Your task to perform on an android device: turn off picture-in-picture Image 0: 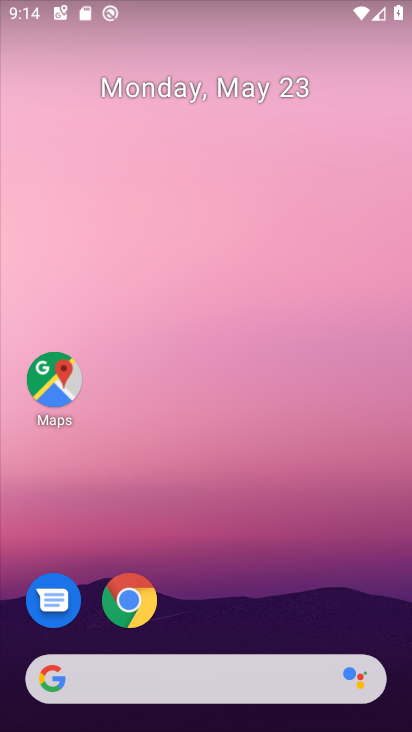
Step 0: drag from (190, 725) to (139, 104)
Your task to perform on an android device: turn off picture-in-picture Image 1: 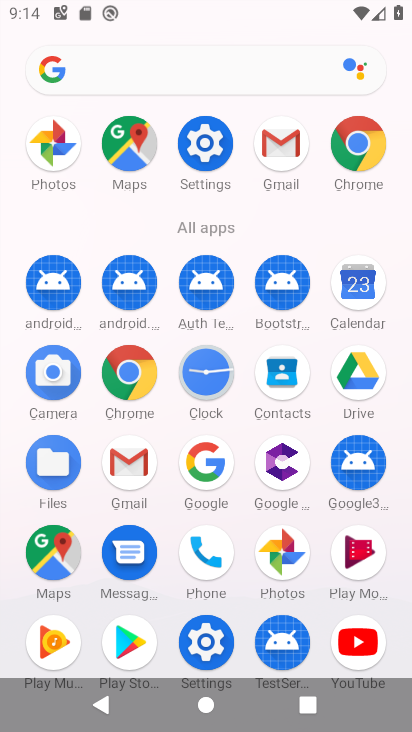
Step 1: click (198, 144)
Your task to perform on an android device: turn off picture-in-picture Image 2: 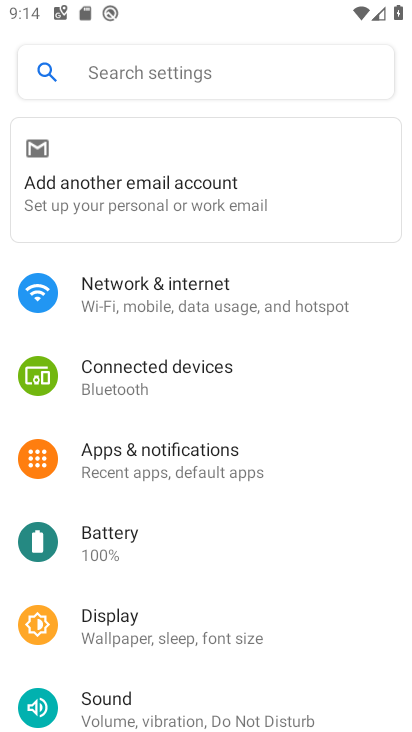
Step 2: click (151, 436)
Your task to perform on an android device: turn off picture-in-picture Image 3: 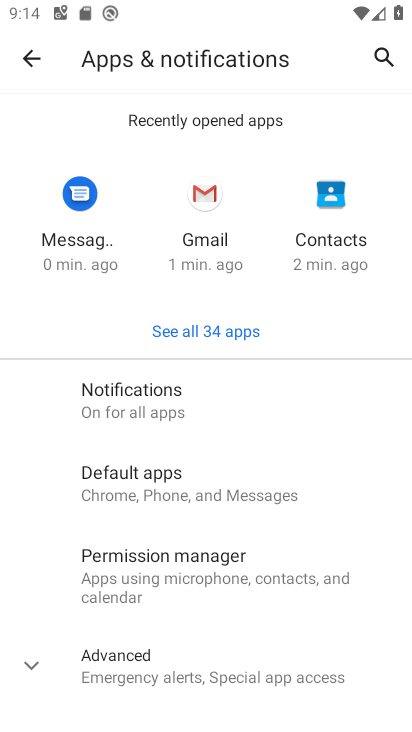
Step 3: click (140, 657)
Your task to perform on an android device: turn off picture-in-picture Image 4: 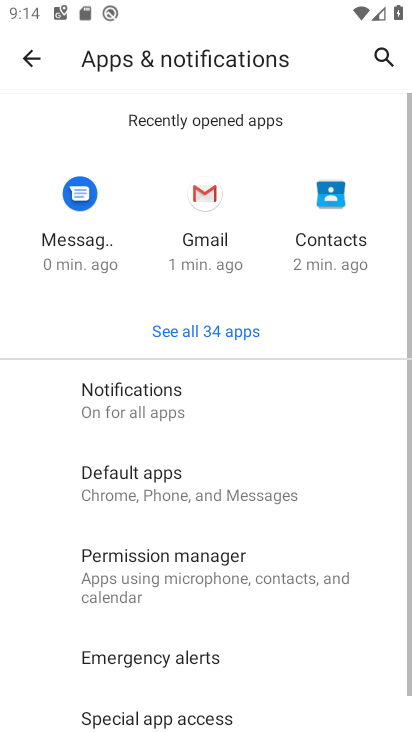
Step 4: drag from (172, 682) to (177, 381)
Your task to perform on an android device: turn off picture-in-picture Image 5: 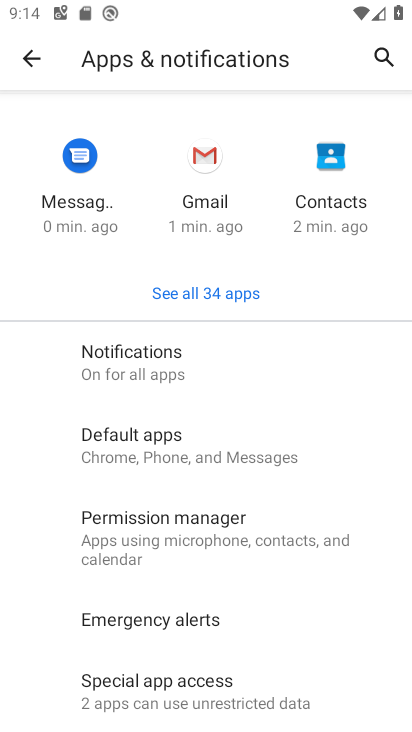
Step 5: click (184, 683)
Your task to perform on an android device: turn off picture-in-picture Image 6: 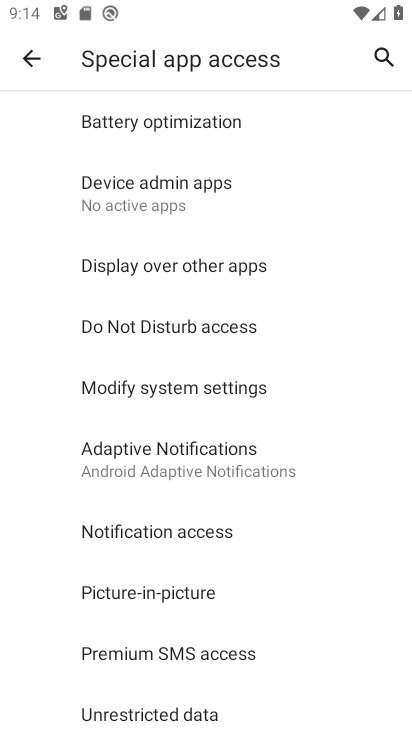
Step 6: click (167, 593)
Your task to perform on an android device: turn off picture-in-picture Image 7: 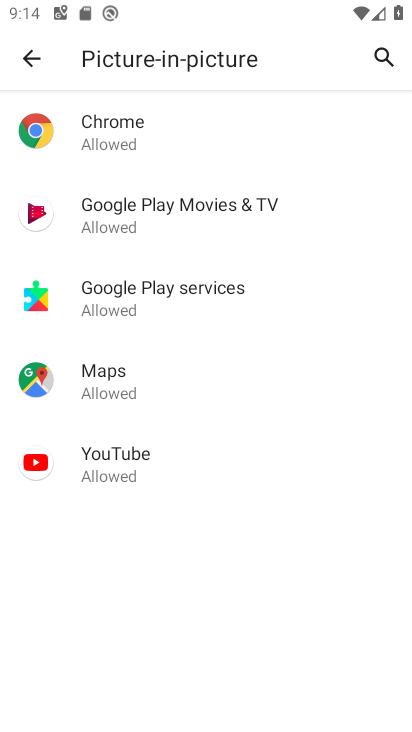
Step 7: click (115, 460)
Your task to perform on an android device: turn off picture-in-picture Image 8: 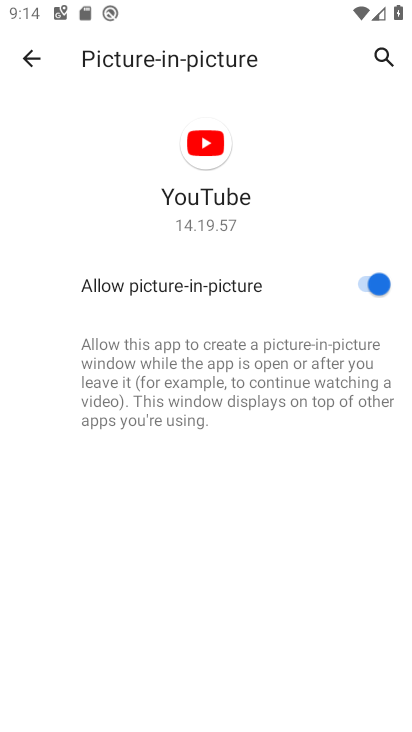
Step 8: click (366, 285)
Your task to perform on an android device: turn off picture-in-picture Image 9: 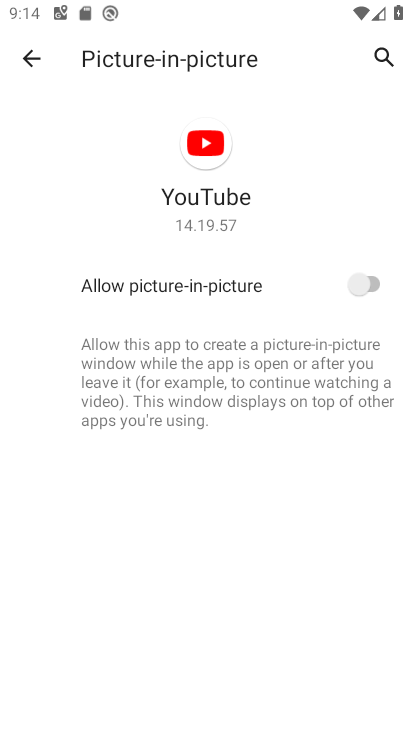
Step 9: task complete